Your task to perform on an android device: Open settings Image 0: 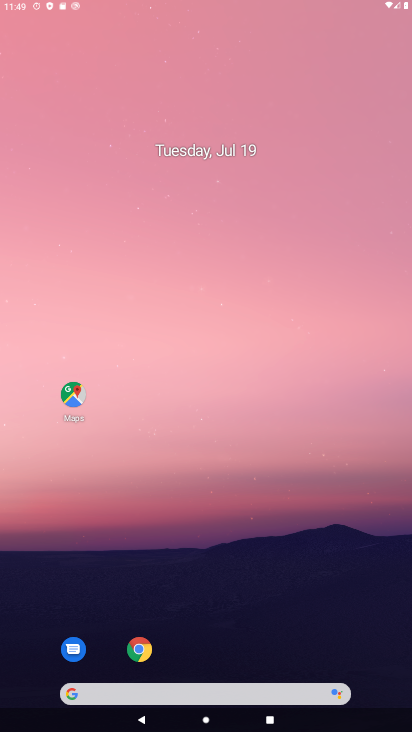
Step 0: click (237, 213)
Your task to perform on an android device: Open settings Image 1: 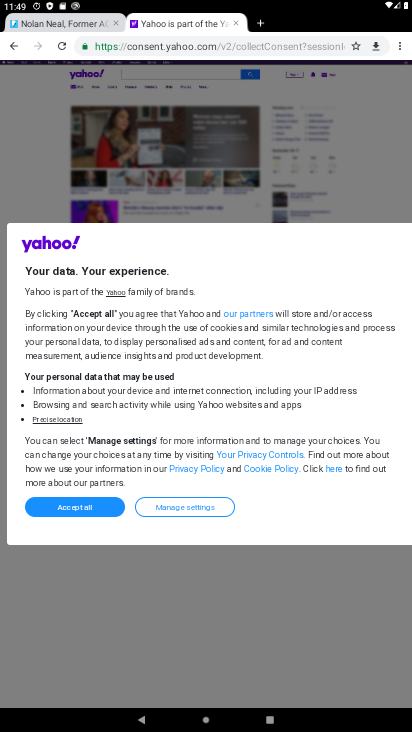
Step 1: click (397, 46)
Your task to perform on an android device: Open settings Image 2: 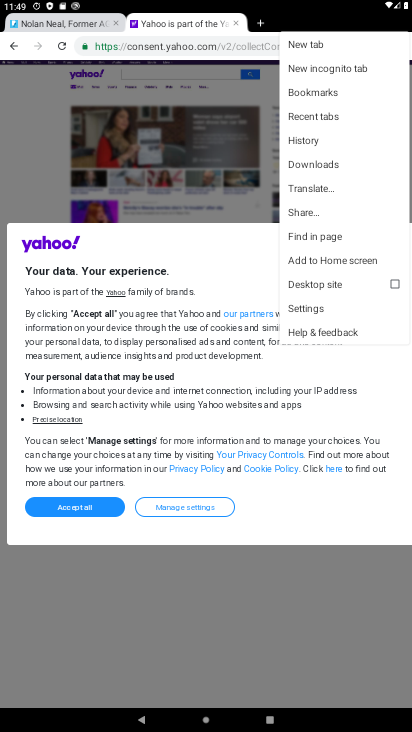
Step 2: click (308, 305)
Your task to perform on an android device: Open settings Image 3: 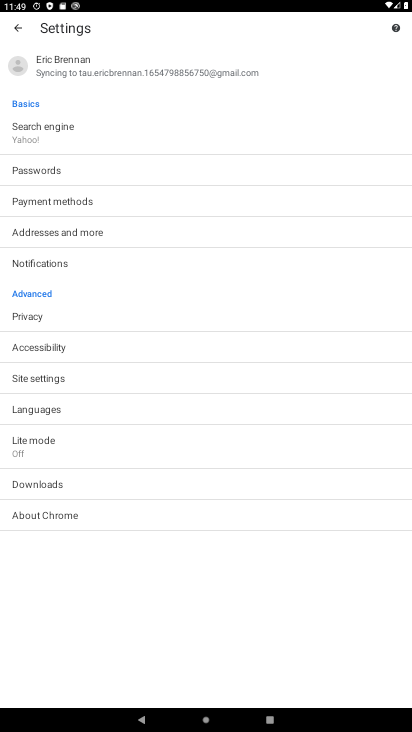
Step 3: task complete